Your task to perform on an android device: open app "Yahoo Mail" (install if not already installed) and enter user name: "lawsuit@inbox.com" and password: "pooch" Image 0: 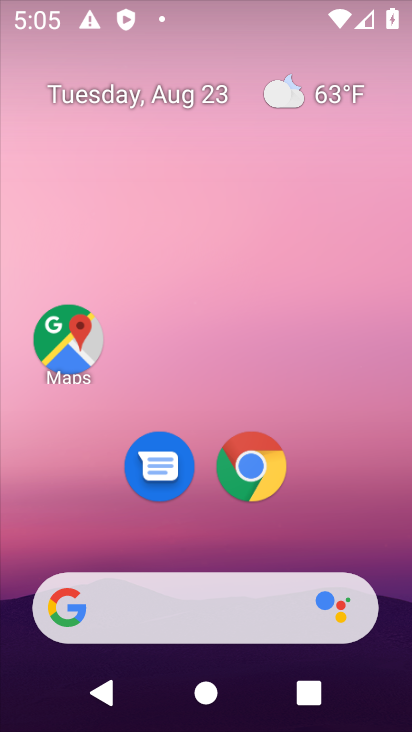
Step 0: drag from (205, 614) to (230, 32)
Your task to perform on an android device: open app "Yahoo Mail" (install if not already installed) and enter user name: "lawsuit@inbox.com" and password: "pooch" Image 1: 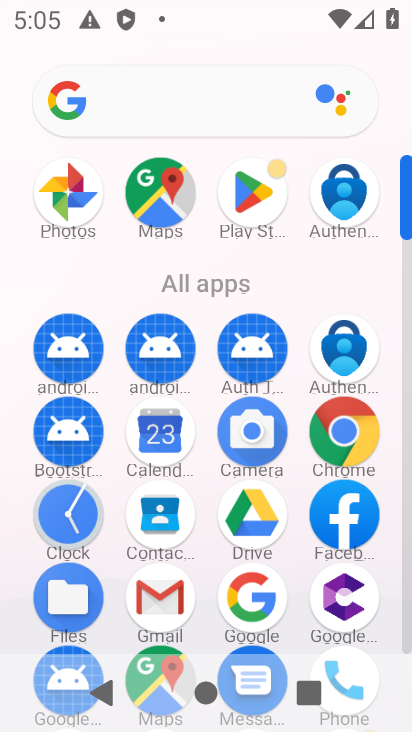
Step 1: click (252, 186)
Your task to perform on an android device: open app "Yahoo Mail" (install if not already installed) and enter user name: "lawsuit@inbox.com" and password: "pooch" Image 2: 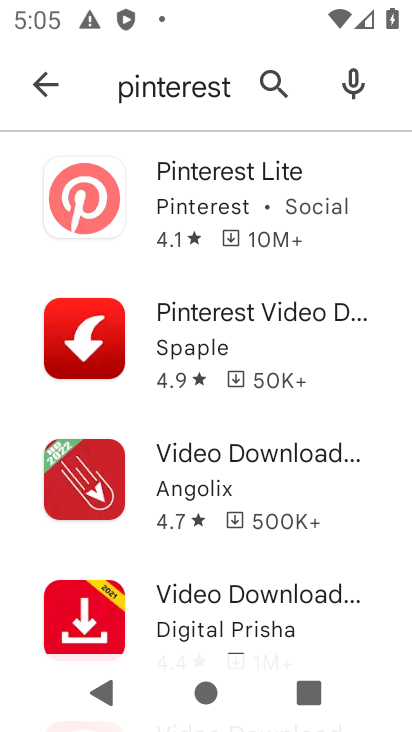
Step 2: click (273, 79)
Your task to perform on an android device: open app "Yahoo Mail" (install if not already installed) and enter user name: "lawsuit@inbox.com" and password: "pooch" Image 3: 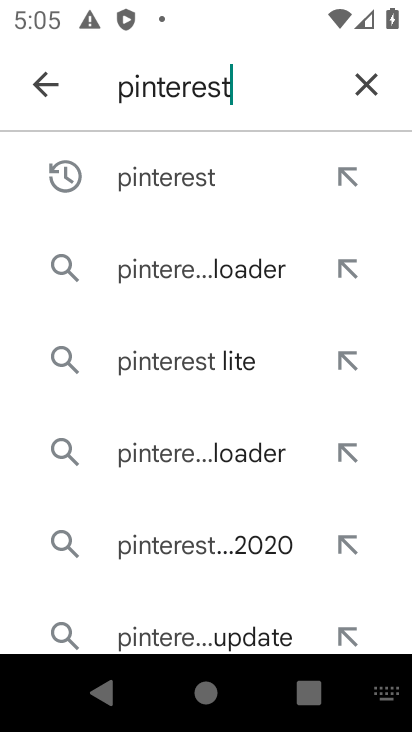
Step 3: click (368, 81)
Your task to perform on an android device: open app "Yahoo Mail" (install if not already installed) and enter user name: "lawsuit@inbox.com" and password: "pooch" Image 4: 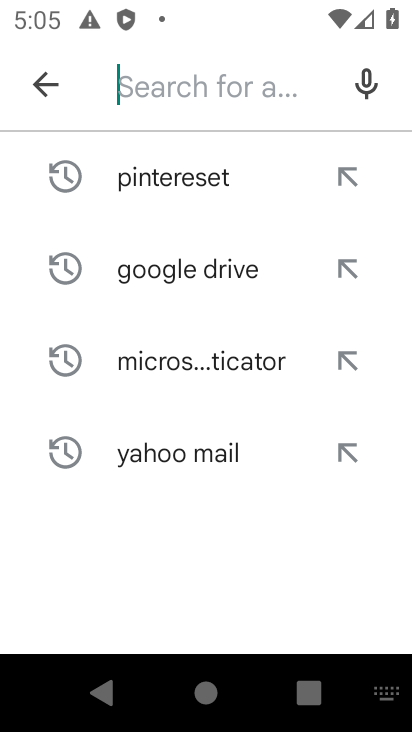
Step 4: type "yahoo mail"
Your task to perform on an android device: open app "Yahoo Mail" (install if not already installed) and enter user name: "lawsuit@inbox.com" and password: "pooch" Image 5: 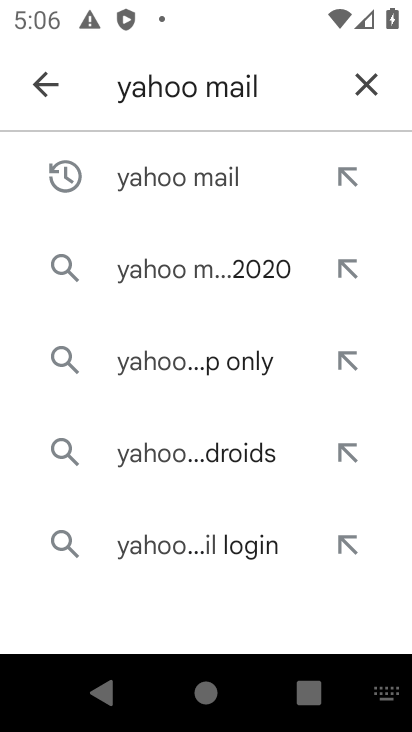
Step 5: click (146, 176)
Your task to perform on an android device: open app "Yahoo Mail" (install if not already installed) and enter user name: "lawsuit@inbox.com" and password: "pooch" Image 6: 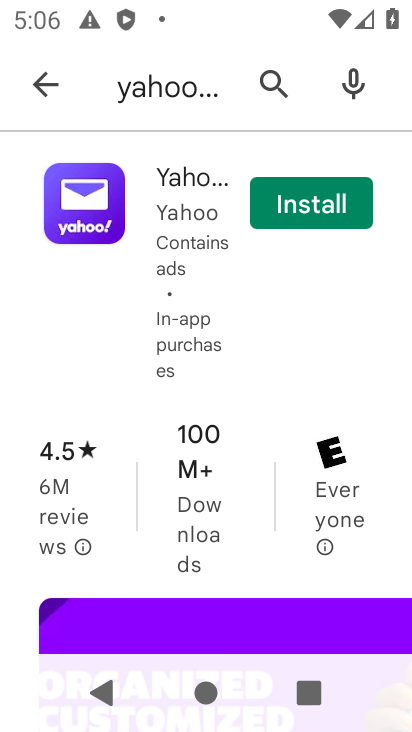
Step 6: click (328, 201)
Your task to perform on an android device: open app "Yahoo Mail" (install if not already installed) and enter user name: "lawsuit@inbox.com" and password: "pooch" Image 7: 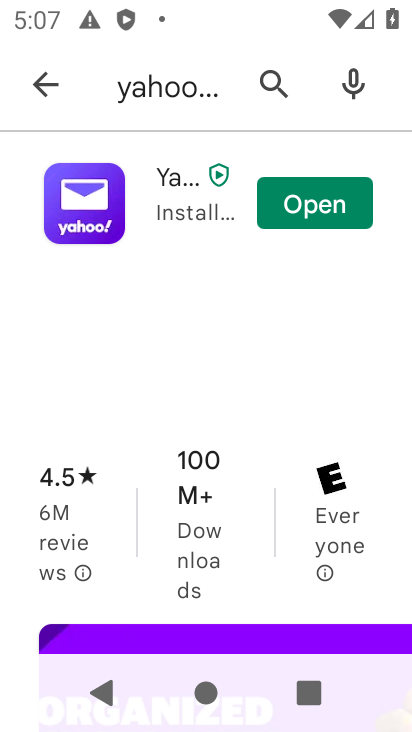
Step 7: click (347, 207)
Your task to perform on an android device: open app "Yahoo Mail" (install if not already installed) and enter user name: "lawsuit@inbox.com" and password: "pooch" Image 8: 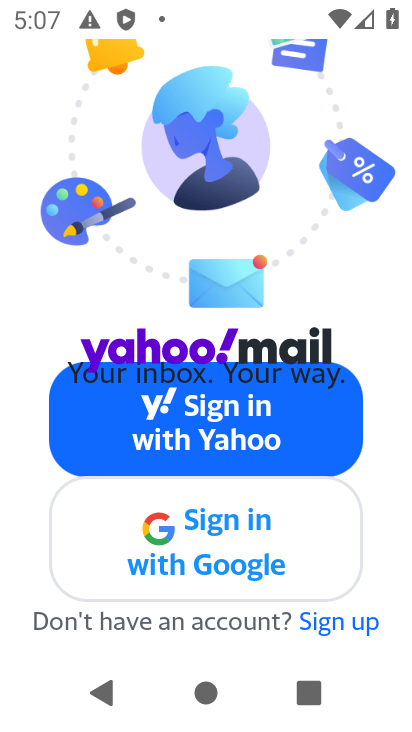
Step 8: click (244, 552)
Your task to perform on an android device: open app "Yahoo Mail" (install if not already installed) and enter user name: "lawsuit@inbox.com" and password: "pooch" Image 9: 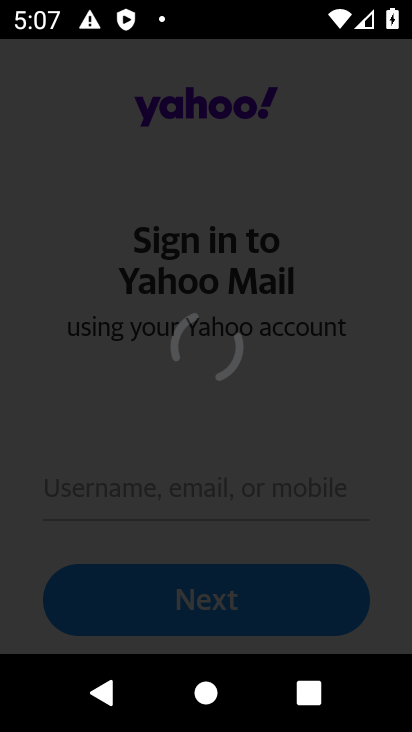
Step 9: task complete